Your task to perform on an android device: set the timer Image 0: 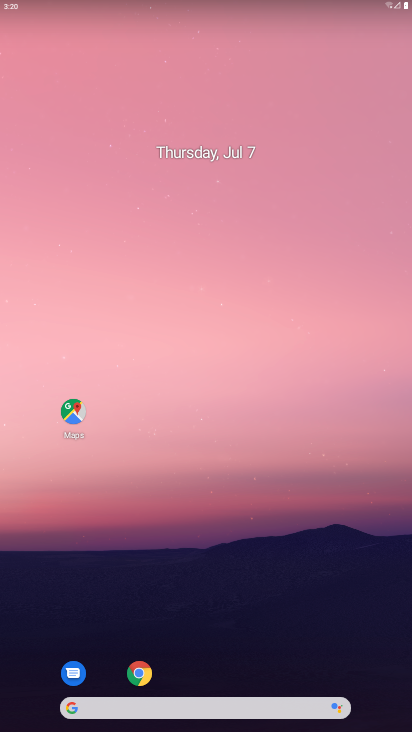
Step 0: drag from (316, 223) to (327, 68)
Your task to perform on an android device: set the timer Image 1: 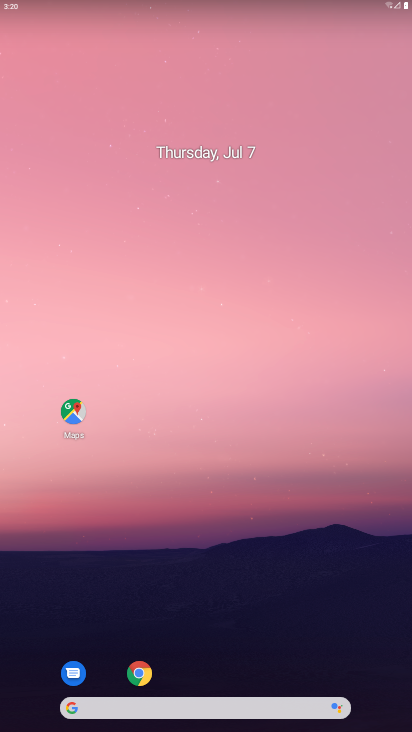
Step 1: drag from (183, 686) to (312, 243)
Your task to perform on an android device: set the timer Image 2: 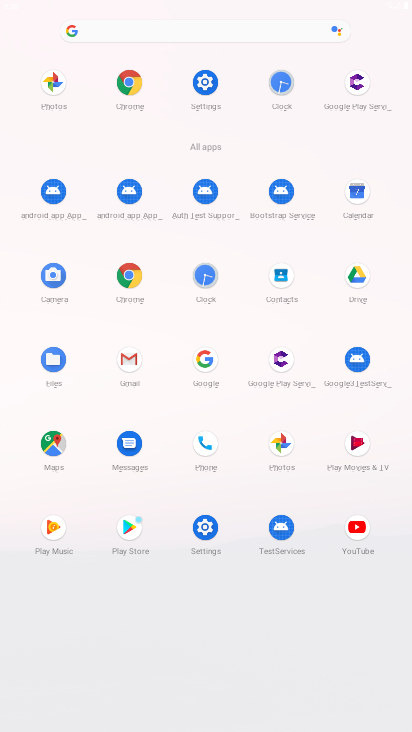
Step 2: click (203, 272)
Your task to perform on an android device: set the timer Image 3: 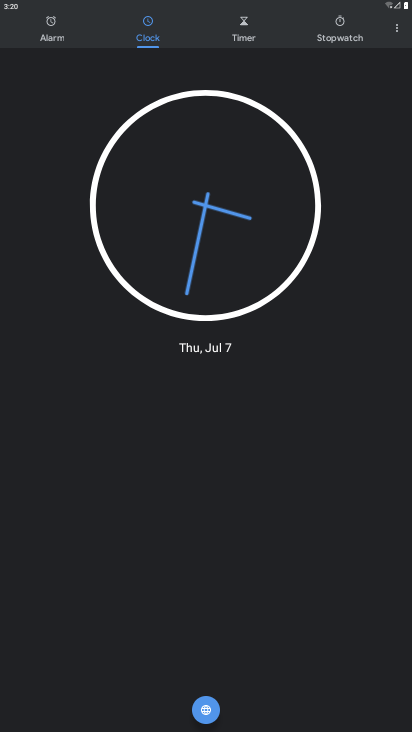
Step 3: click (247, 28)
Your task to perform on an android device: set the timer Image 4: 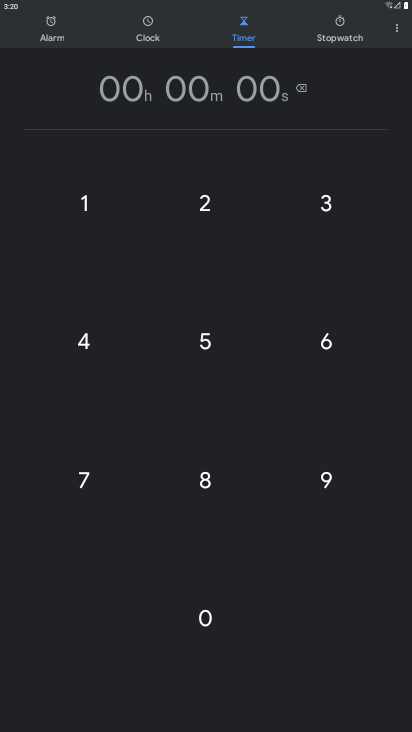
Step 4: click (207, 202)
Your task to perform on an android device: set the timer Image 5: 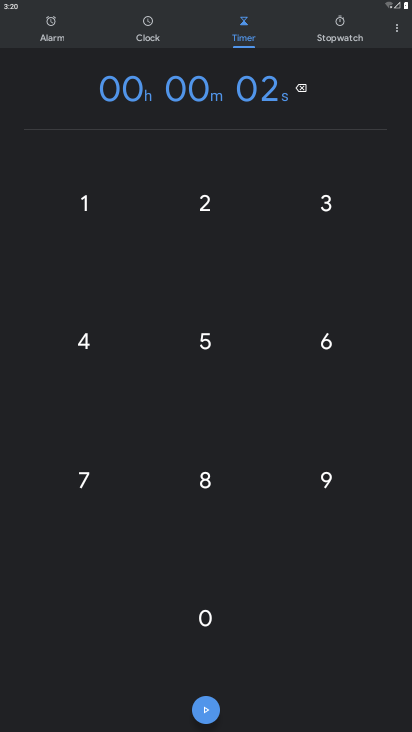
Step 5: click (207, 202)
Your task to perform on an android device: set the timer Image 6: 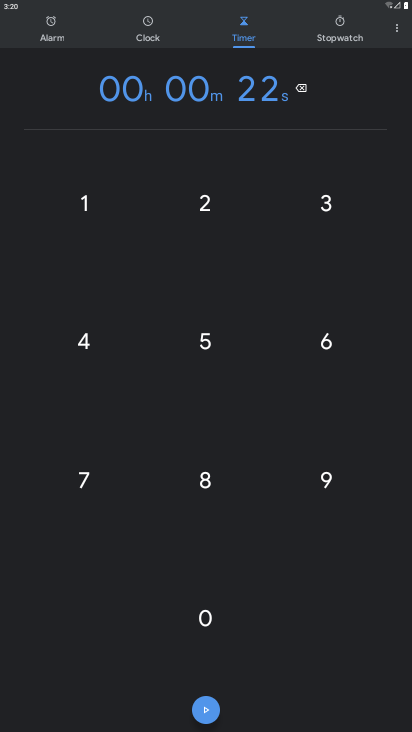
Step 6: drag from (206, 208) to (217, 728)
Your task to perform on an android device: set the timer Image 7: 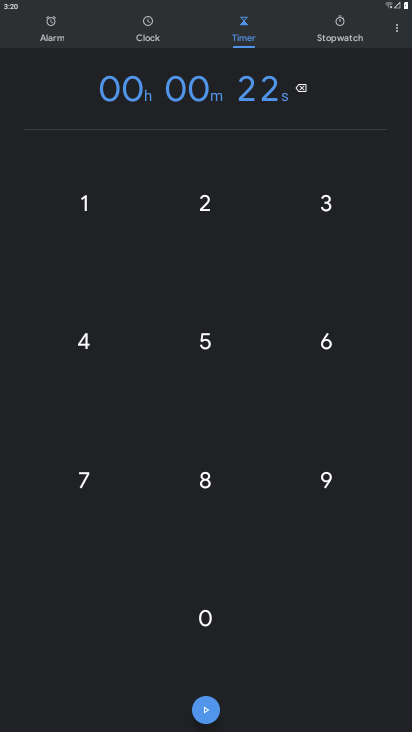
Step 7: click (209, 707)
Your task to perform on an android device: set the timer Image 8: 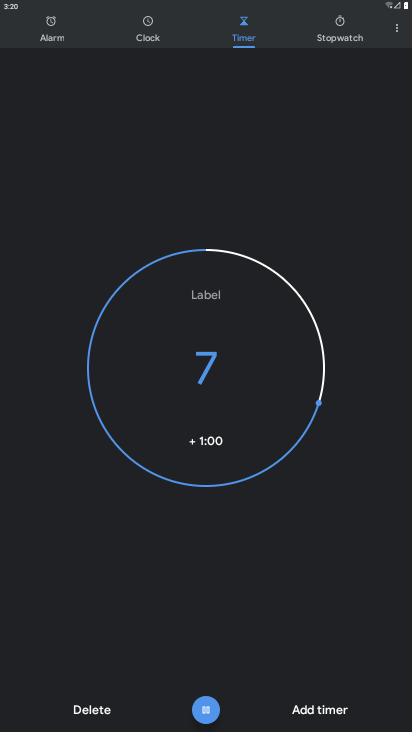
Step 8: click (207, 712)
Your task to perform on an android device: set the timer Image 9: 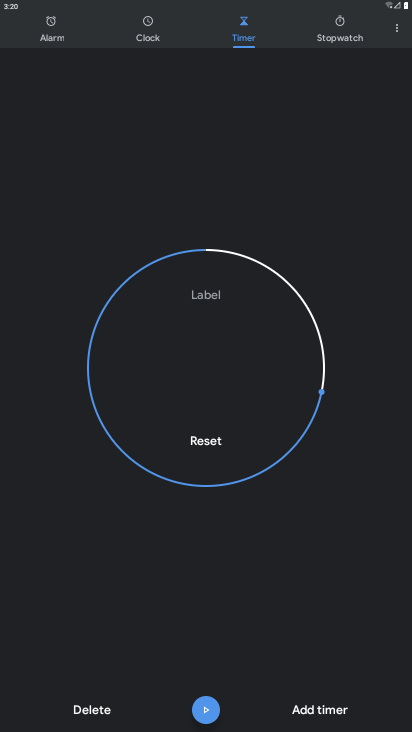
Step 9: task complete